Your task to perform on an android device: open app "Adobe Acrobat Reader: Edit PDF" (install if not already installed) Image 0: 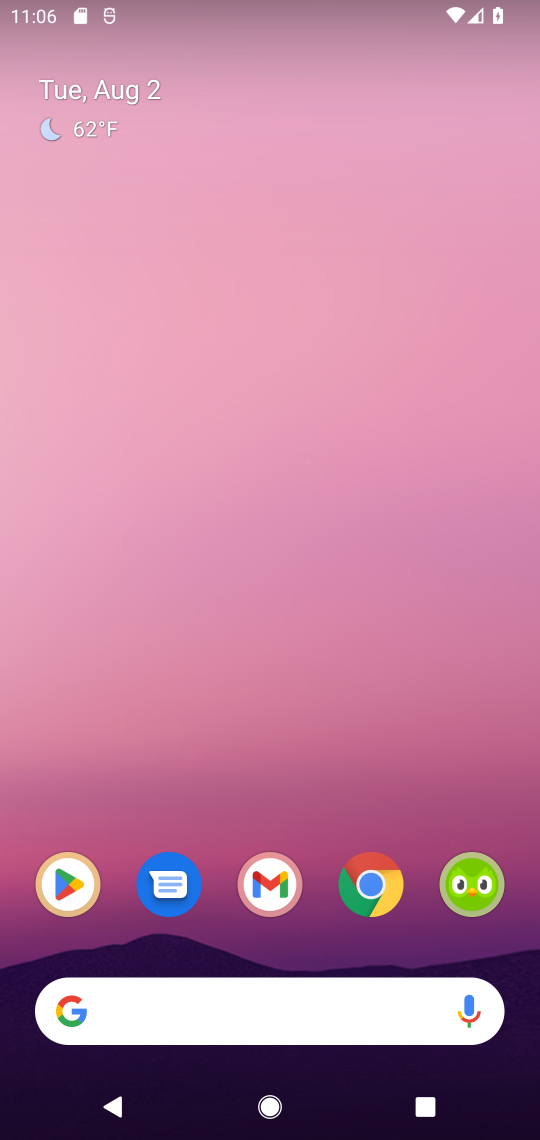
Step 0: click (96, 890)
Your task to perform on an android device: open app "Adobe Acrobat Reader: Edit PDF" (install if not already installed) Image 1: 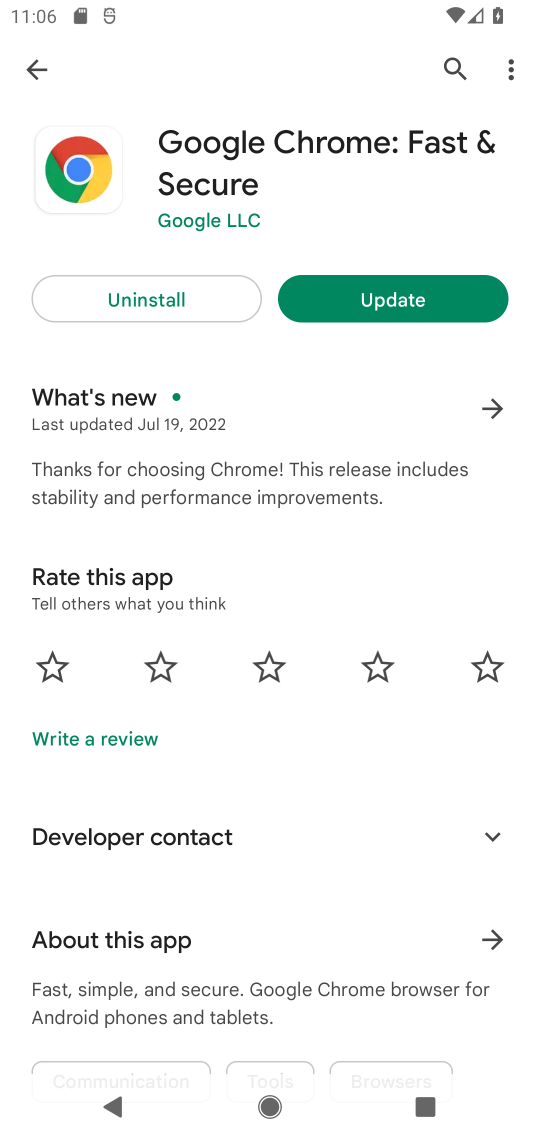
Step 1: click (34, 80)
Your task to perform on an android device: open app "Adobe Acrobat Reader: Edit PDF" (install if not already installed) Image 2: 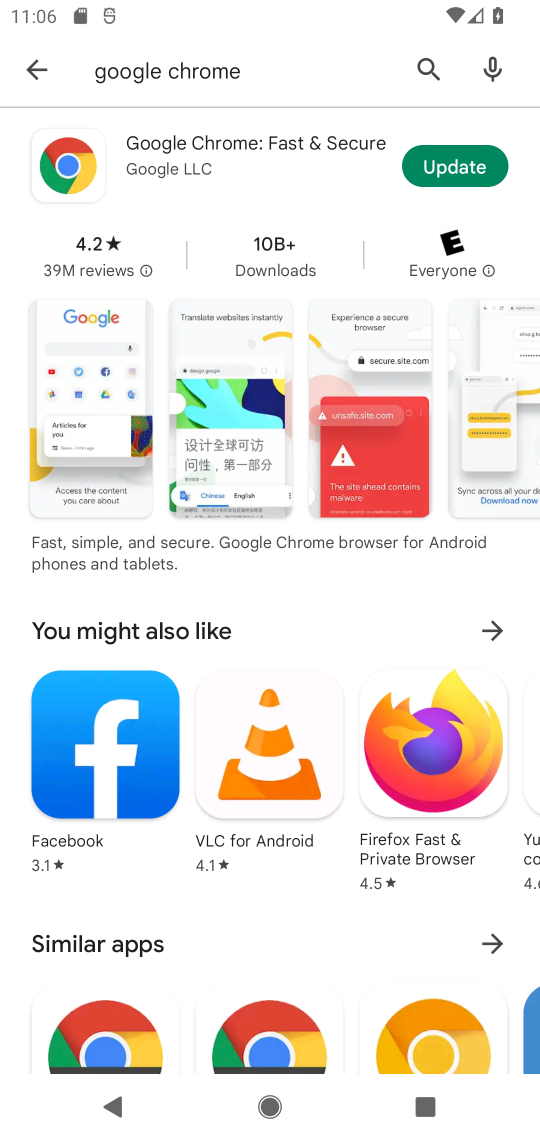
Step 2: click (236, 75)
Your task to perform on an android device: open app "Adobe Acrobat Reader: Edit PDF" (install if not already installed) Image 3: 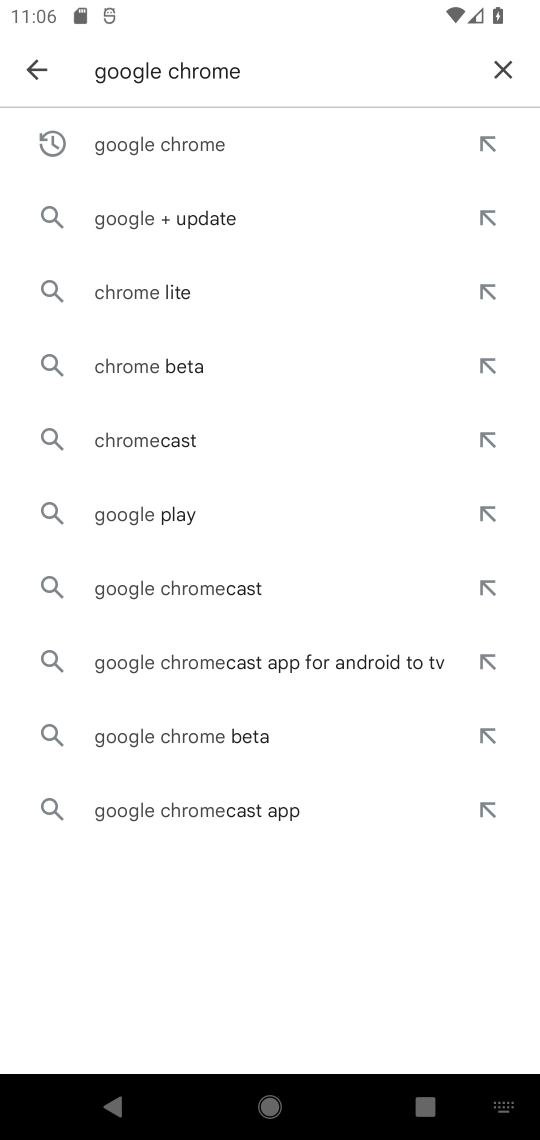
Step 3: click (506, 60)
Your task to perform on an android device: open app "Adobe Acrobat Reader: Edit PDF" (install if not already installed) Image 4: 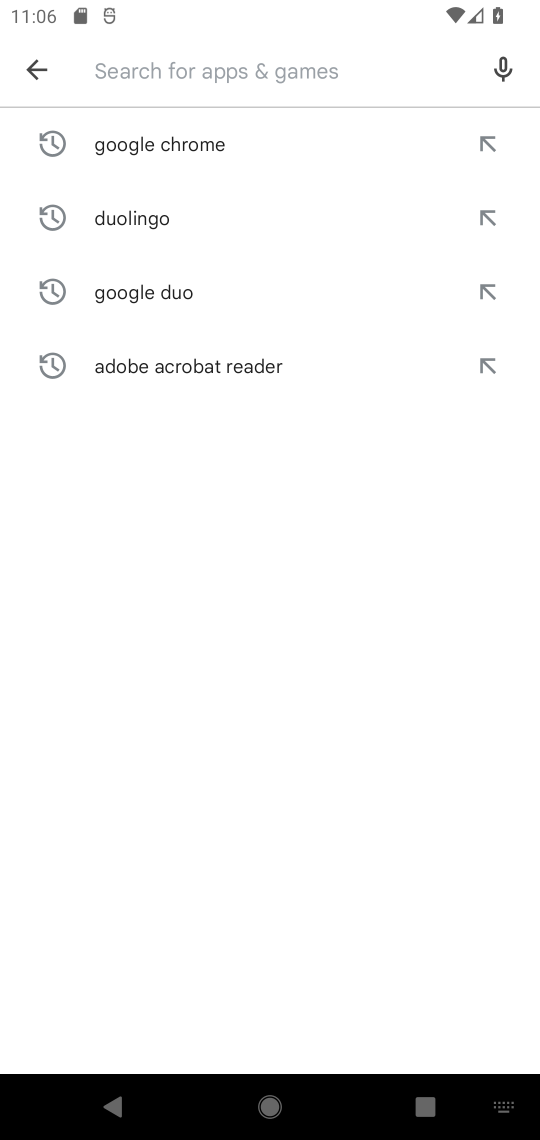
Step 4: type "Adobe Acrobat Reader"
Your task to perform on an android device: open app "Adobe Acrobat Reader: Edit PDF" (install if not already installed) Image 5: 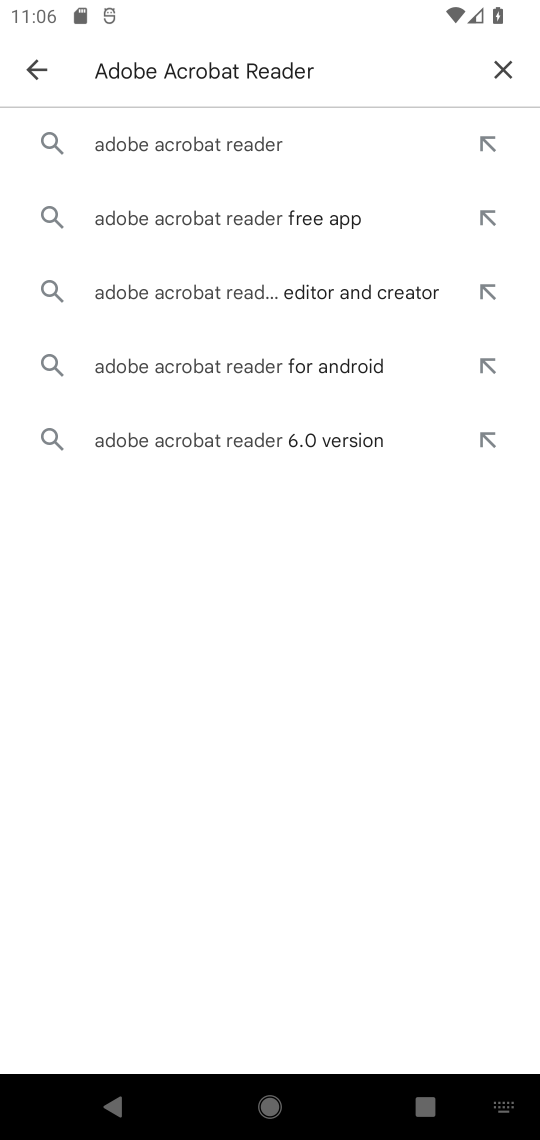
Step 5: click (180, 143)
Your task to perform on an android device: open app "Adobe Acrobat Reader: Edit PDF" (install if not already installed) Image 6: 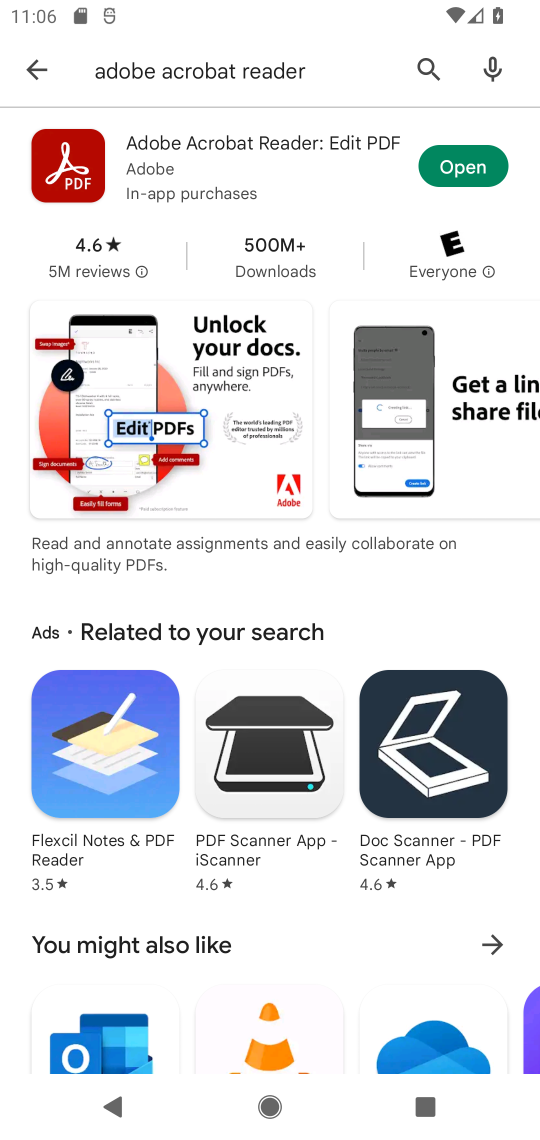
Step 6: click (444, 175)
Your task to perform on an android device: open app "Adobe Acrobat Reader: Edit PDF" (install if not already installed) Image 7: 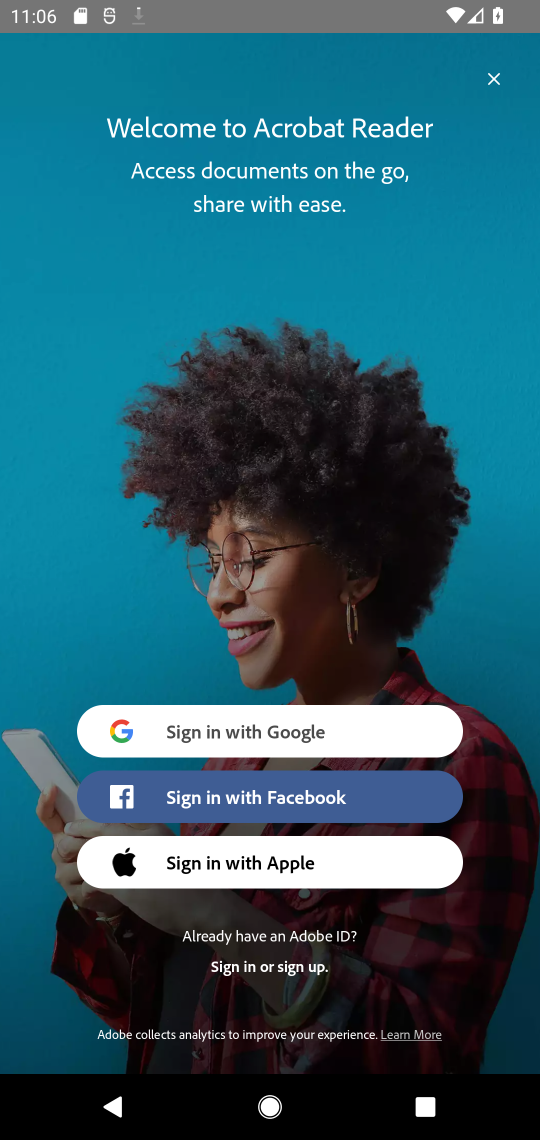
Step 7: click (282, 721)
Your task to perform on an android device: open app "Adobe Acrobat Reader: Edit PDF" (install if not already installed) Image 8: 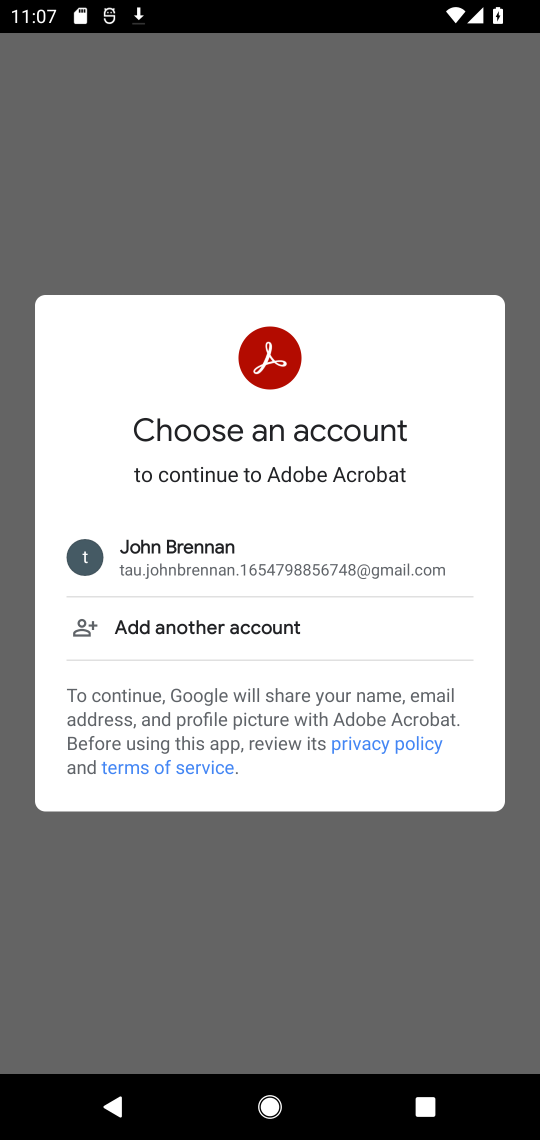
Step 8: click (252, 556)
Your task to perform on an android device: open app "Adobe Acrobat Reader: Edit PDF" (install if not already installed) Image 9: 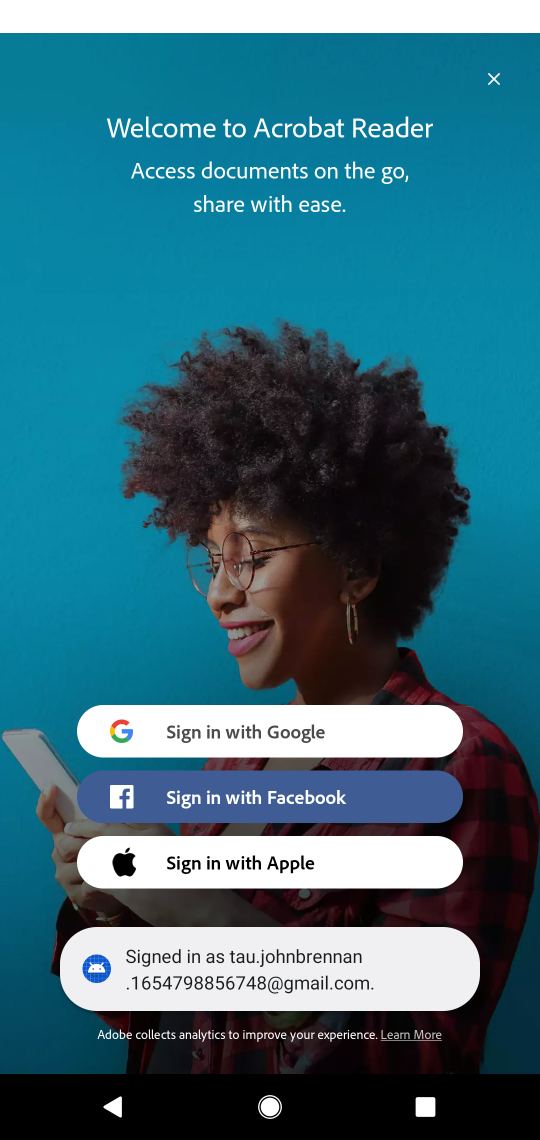
Step 9: click (302, 721)
Your task to perform on an android device: open app "Adobe Acrobat Reader: Edit PDF" (install if not already installed) Image 10: 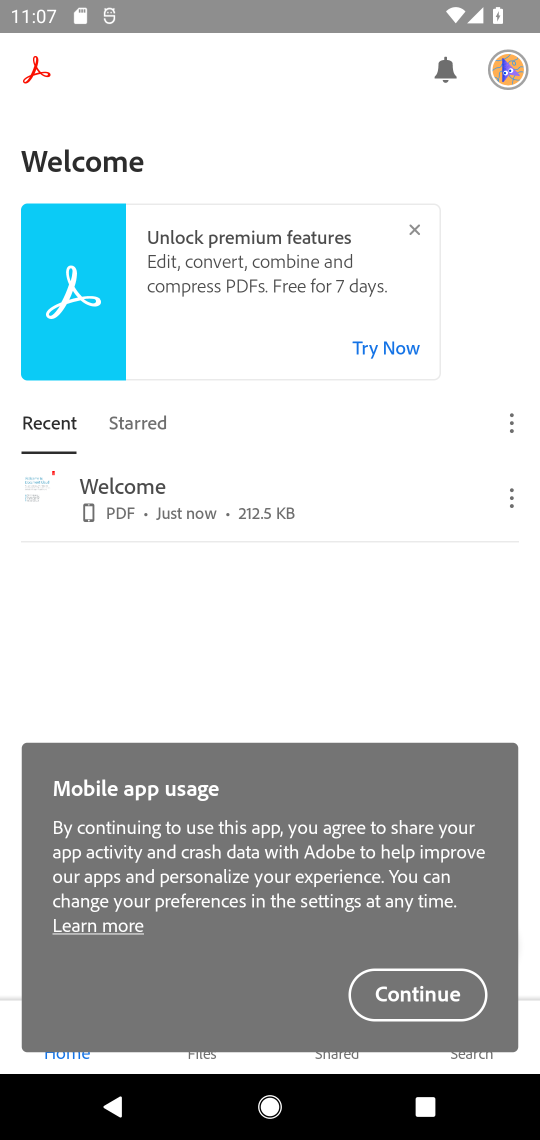
Step 10: task complete